Your task to perform on an android device: open wifi settings Image 0: 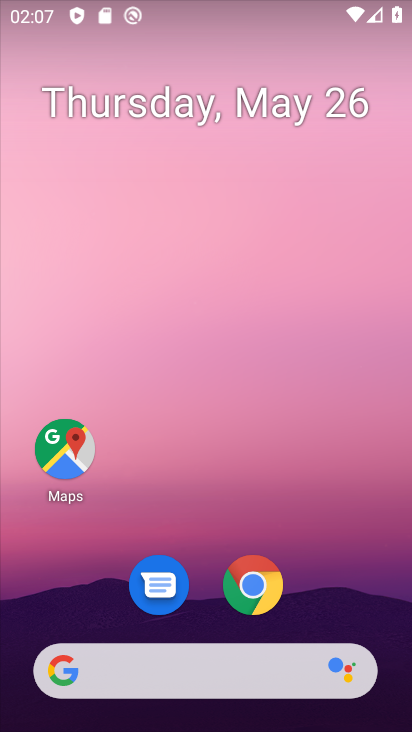
Step 0: drag from (252, 137) to (257, 100)
Your task to perform on an android device: open wifi settings Image 1: 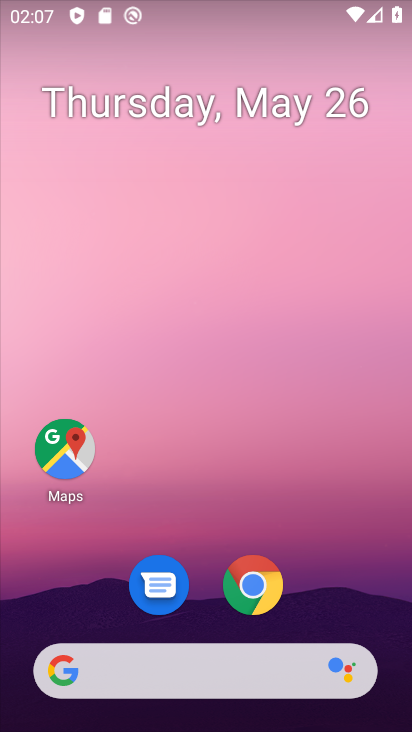
Step 1: drag from (306, 491) to (292, 74)
Your task to perform on an android device: open wifi settings Image 2: 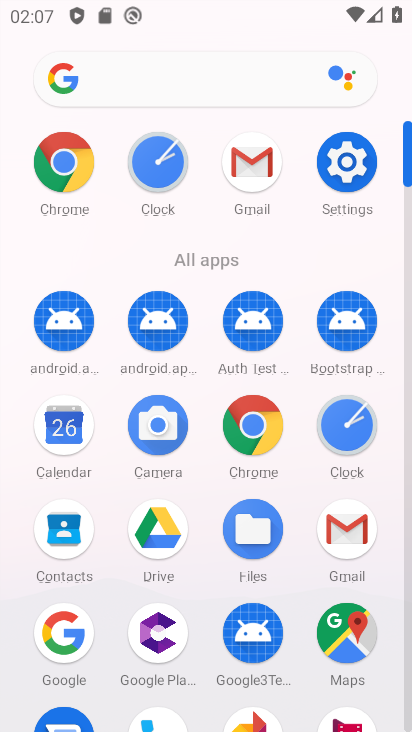
Step 2: click (335, 167)
Your task to perform on an android device: open wifi settings Image 3: 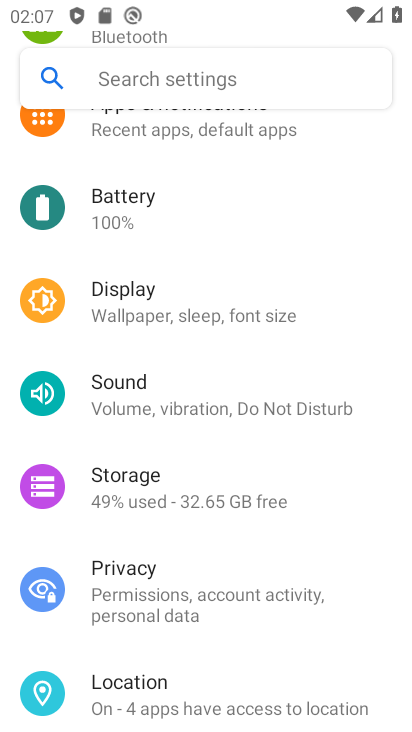
Step 3: drag from (218, 325) to (197, 605)
Your task to perform on an android device: open wifi settings Image 4: 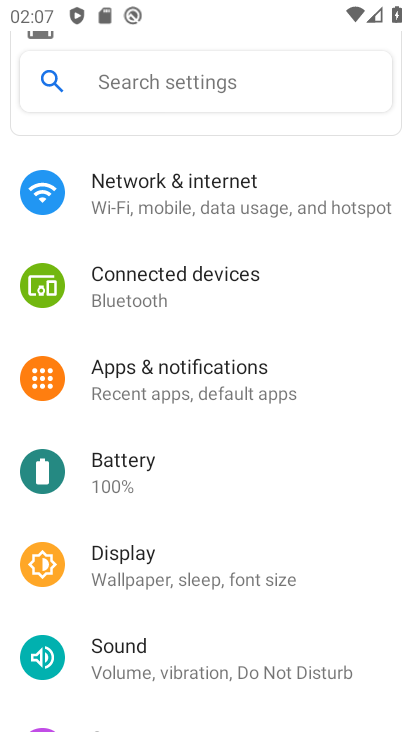
Step 4: click (240, 198)
Your task to perform on an android device: open wifi settings Image 5: 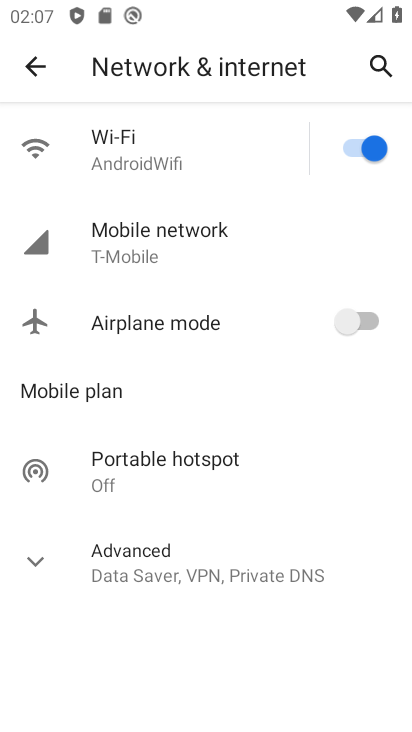
Step 5: click (159, 154)
Your task to perform on an android device: open wifi settings Image 6: 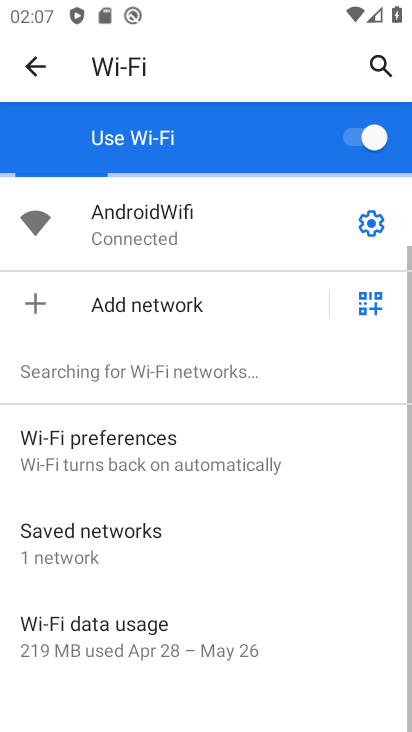
Step 6: task complete